Your task to perform on an android device: Show me recent news Image 0: 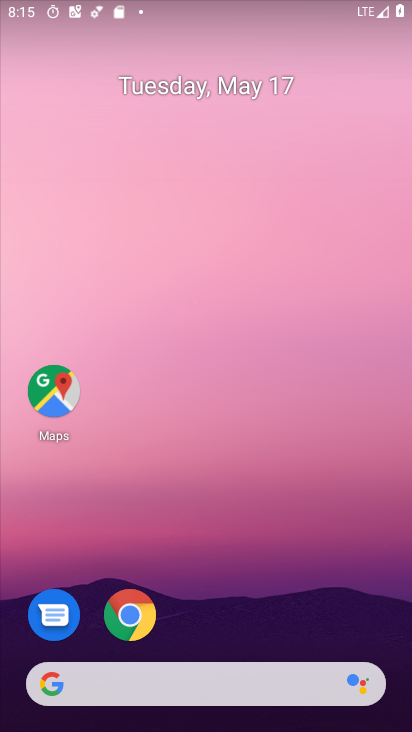
Step 0: drag from (207, 294) to (207, 225)
Your task to perform on an android device: Show me recent news Image 1: 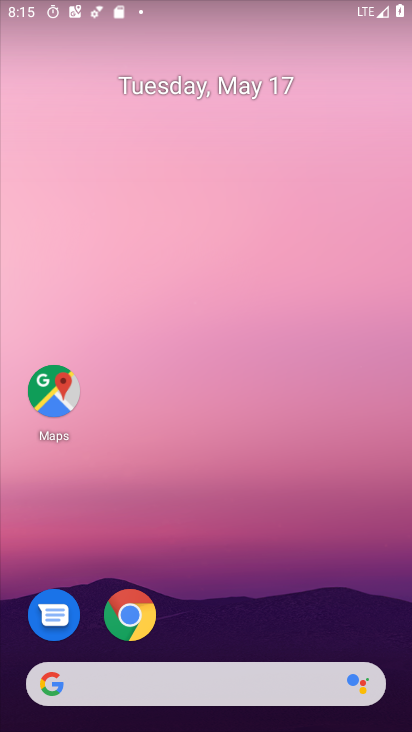
Step 1: drag from (261, 636) to (270, 173)
Your task to perform on an android device: Show me recent news Image 2: 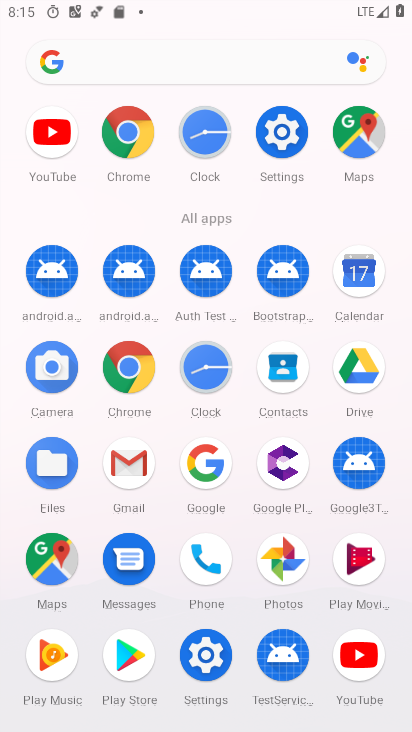
Step 2: click (215, 466)
Your task to perform on an android device: Show me recent news Image 3: 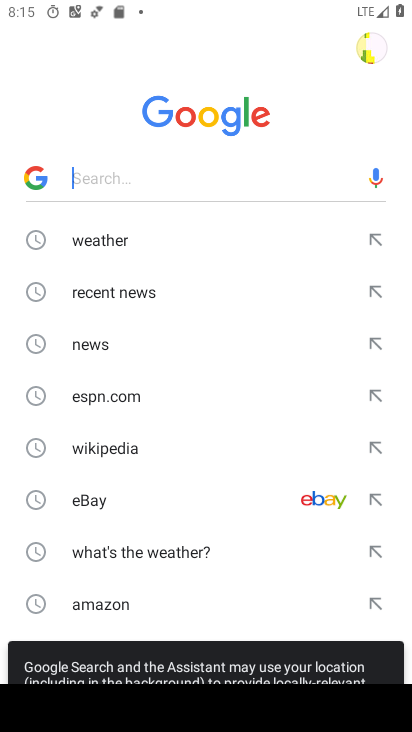
Step 3: click (127, 303)
Your task to perform on an android device: Show me recent news Image 4: 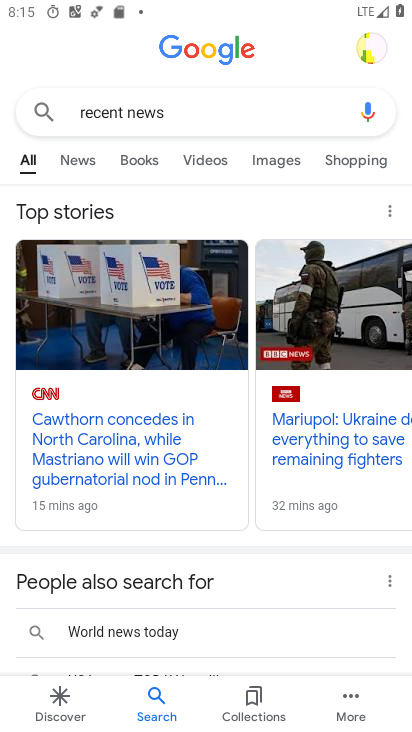
Step 4: task complete